Your task to perform on an android device: Check the news Image 0: 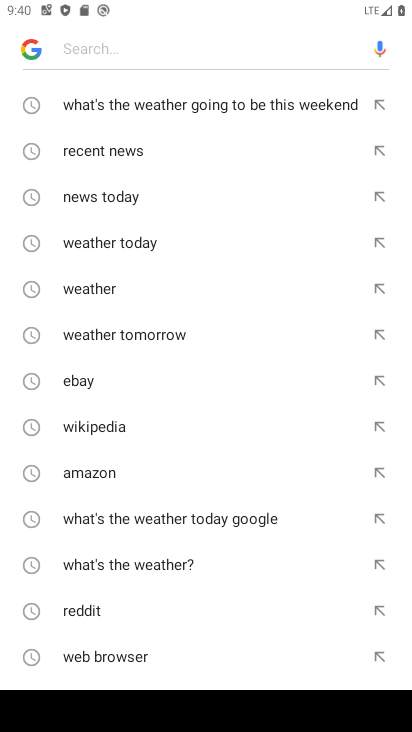
Step 0: type "check the news"
Your task to perform on an android device: Check the news Image 1: 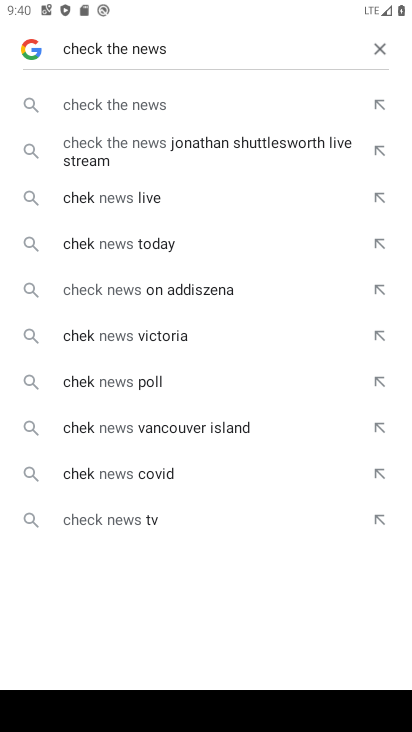
Step 1: click (142, 97)
Your task to perform on an android device: Check the news Image 2: 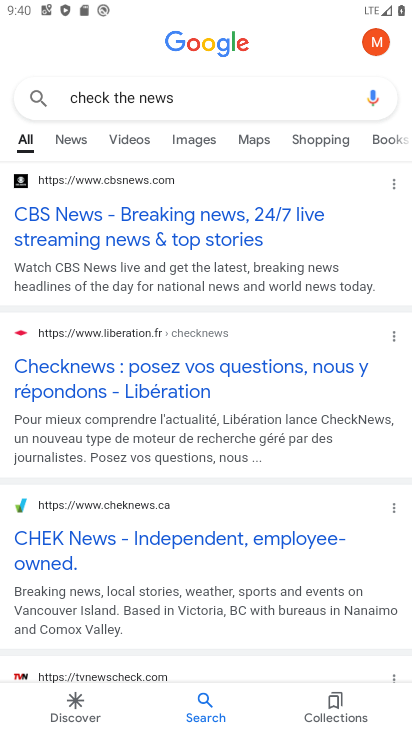
Step 2: task complete